Your task to perform on an android device: set the timer Image 0: 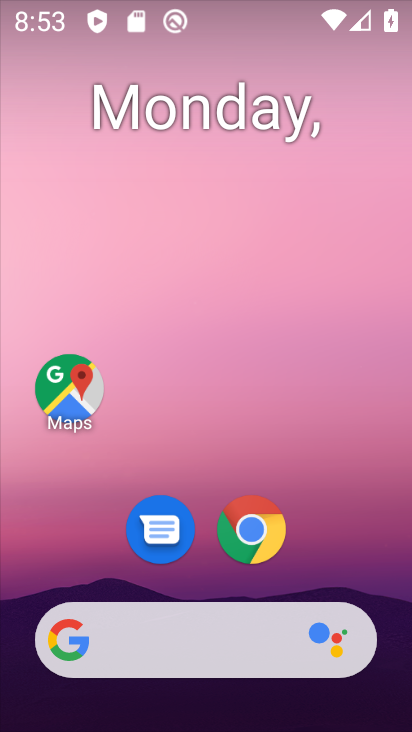
Step 0: drag from (289, 704) to (260, 257)
Your task to perform on an android device: set the timer Image 1: 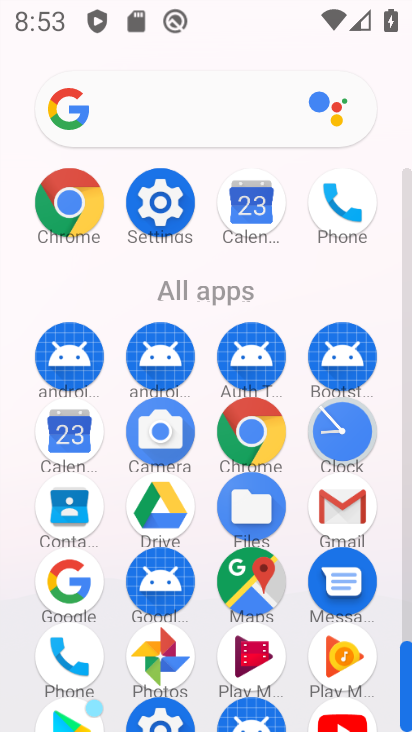
Step 1: click (340, 429)
Your task to perform on an android device: set the timer Image 2: 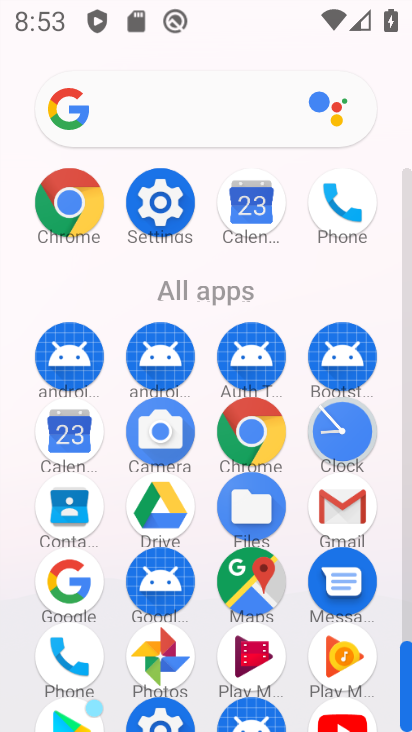
Step 2: click (340, 429)
Your task to perform on an android device: set the timer Image 3: 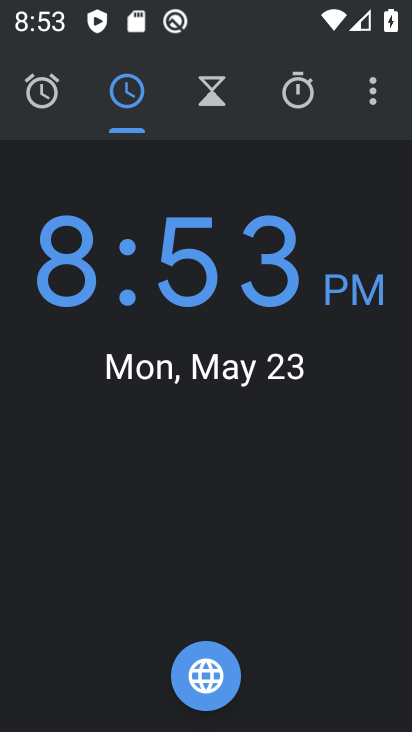
Step 3: click (204, 103)
Your task to perform on an android device: set the timer Image 4: 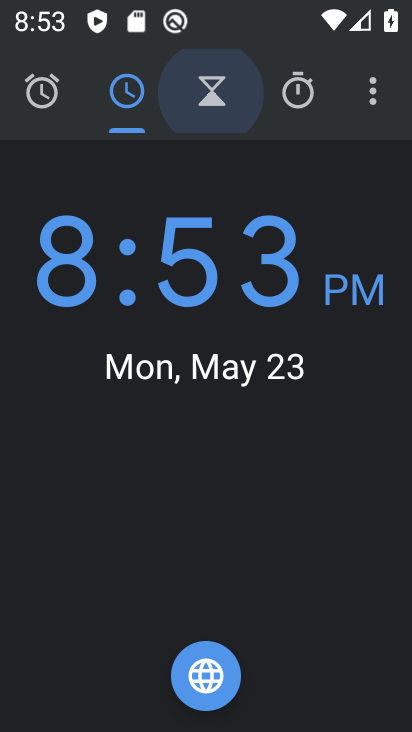
Step 4: click (208, 103)
Your task to perform on an android device: set the timer Image 5: 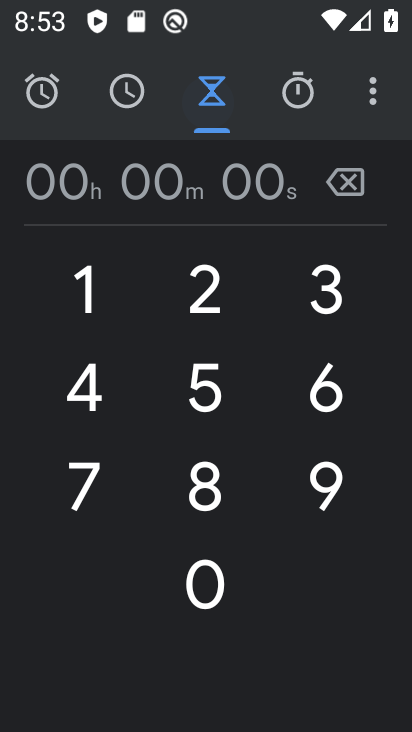
Step 5: click (213, 103)
Your task to perform on an android device: set the timer Image 6: 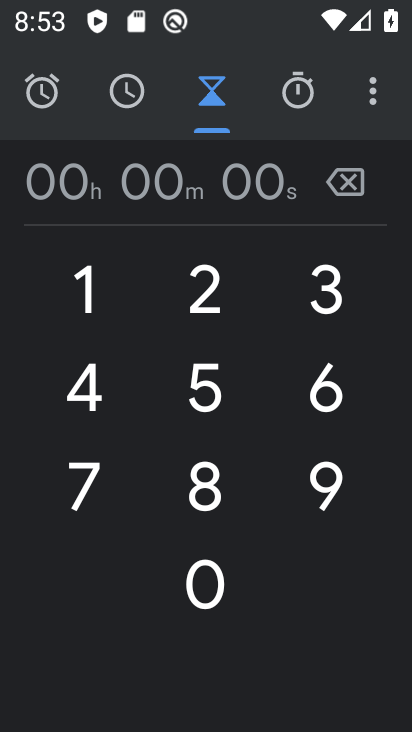
Step 6: click (218, 378)
Your task to perform on an android device: set the timer Image 7: 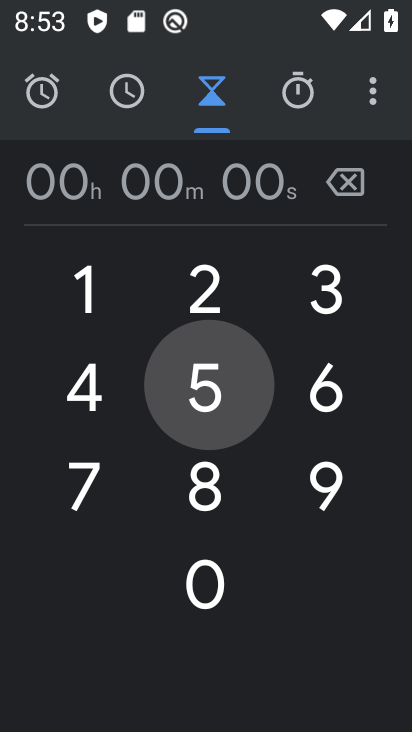
Step 7: click (212, 380)
Your task to perform on an android device: set the timer Image 8: 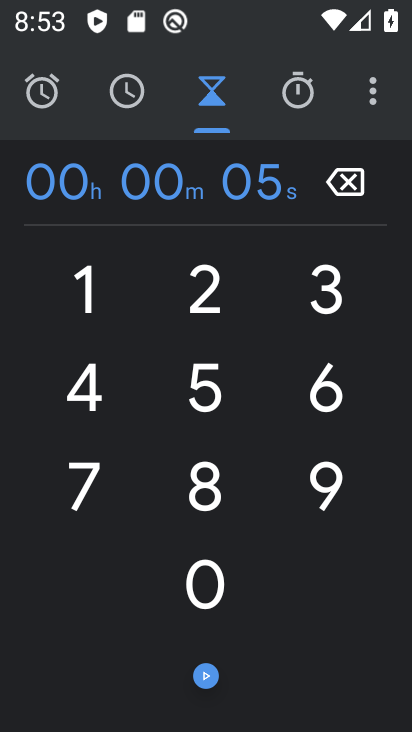
Step 8: click (206, 397)
Your task to perform on an android device: set the timer Image 9: 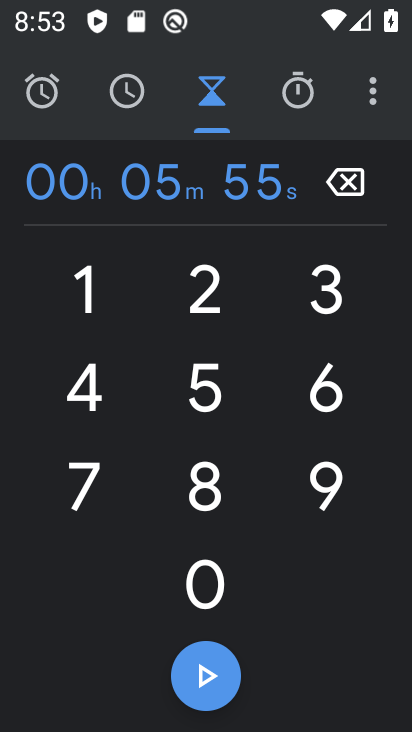
Step 9: click (208, 396)
Your task to perform on an android device: set the timer Image 10: 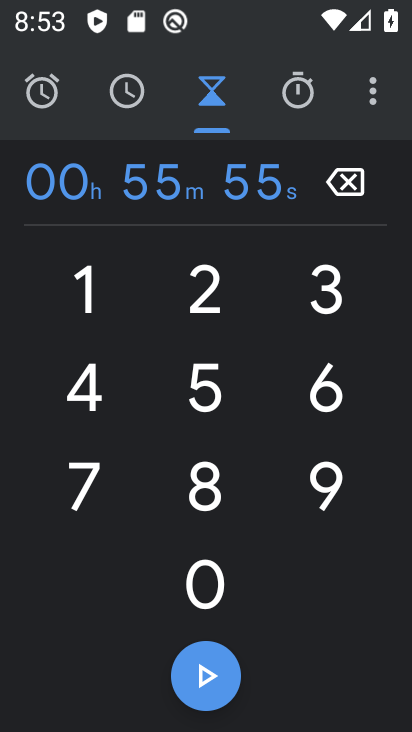
Step 10: click (214, 475)
Your task to perform on an android device: set the timer Image 11: 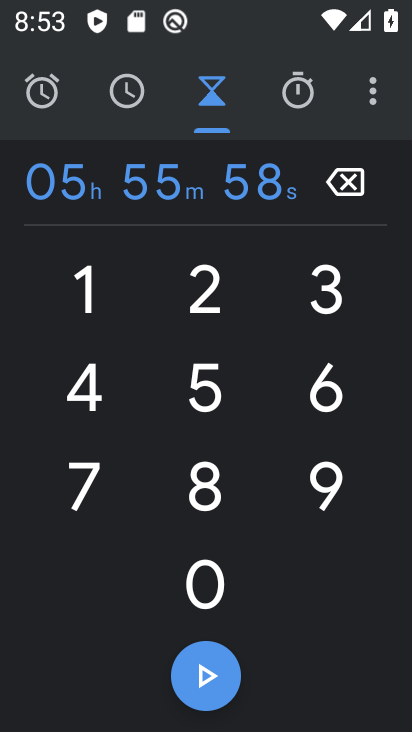
Step 11: click (213, 478)
Your task to perform on an android device: set the timer Image 12: 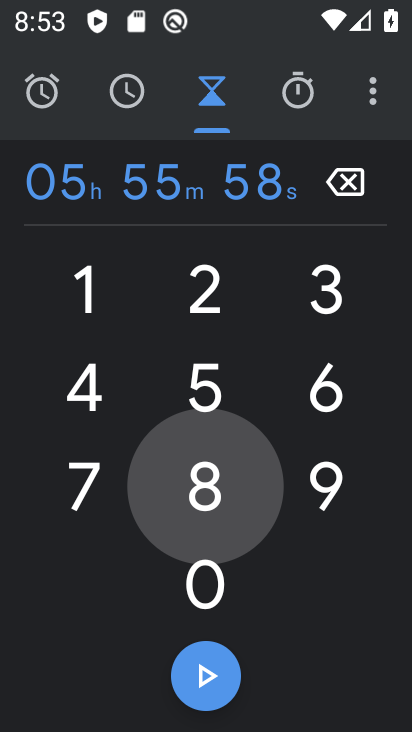
Step 12: click (213, 478)
Your task to perform on an android device: set the timer Image 13: 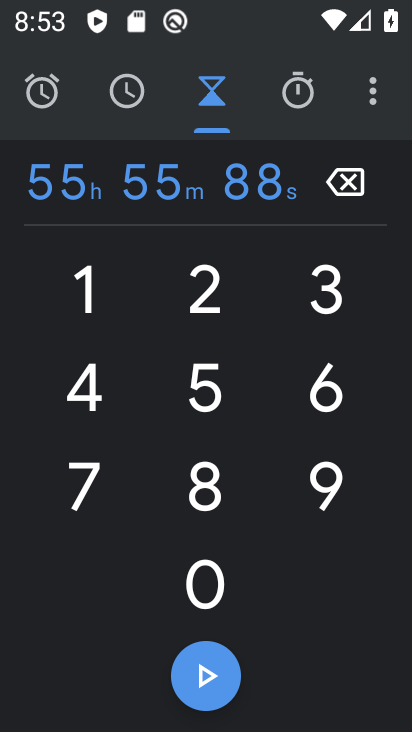
Step 13: click (201, 677)
Your task to perform on an android device: set the timer Image 14: 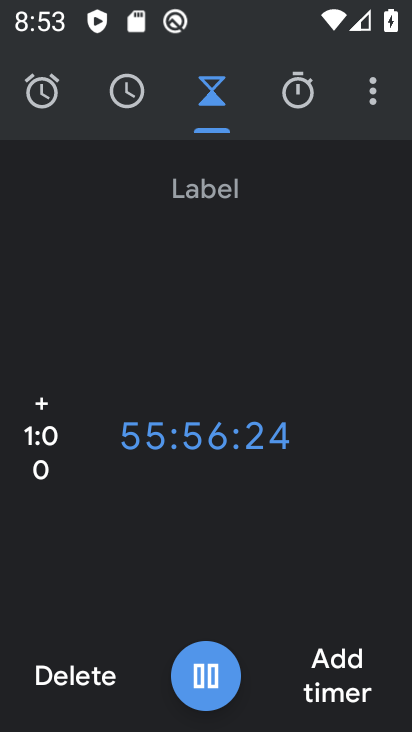
Step 14: click (337, 686)
Your task to perform on an android device: set the timer Image 15: 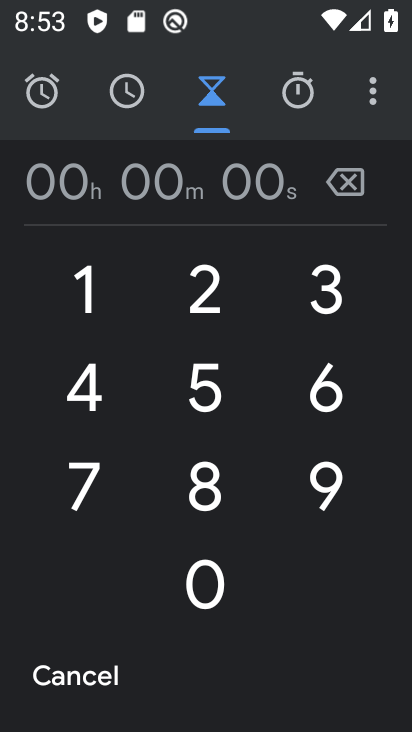
Step 15: task complete